Your task to perform on an android device: Go to settings Image 0: 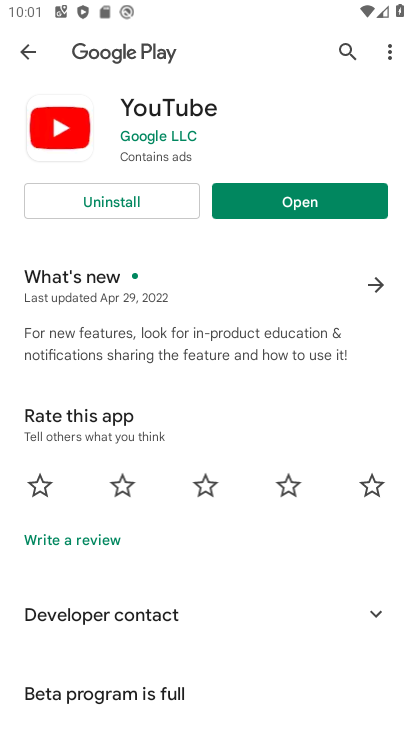
Step 0: press home button
Your task to perform on an android device: Go to settings Image 1: 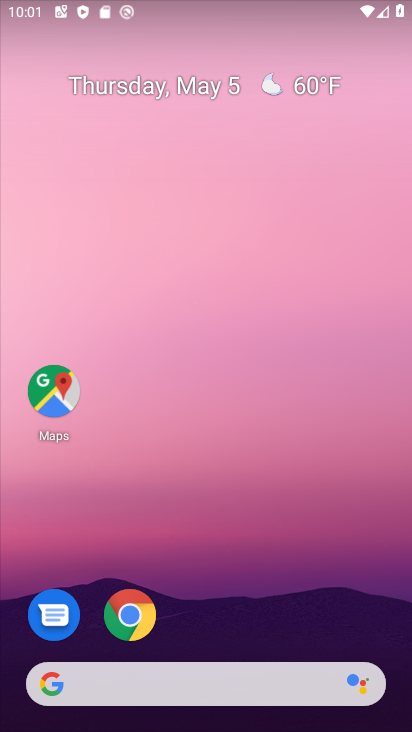
Step 1: drag from (225, 607) to (297, 107)
Your task to perform on an android device: Go to settings Image 2: 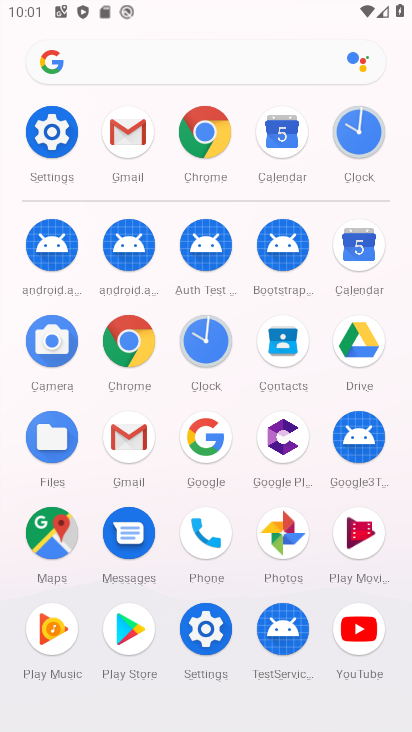
Step 2: click (54, 133)
Your task to perform on an android device: Go to settings Image 3: 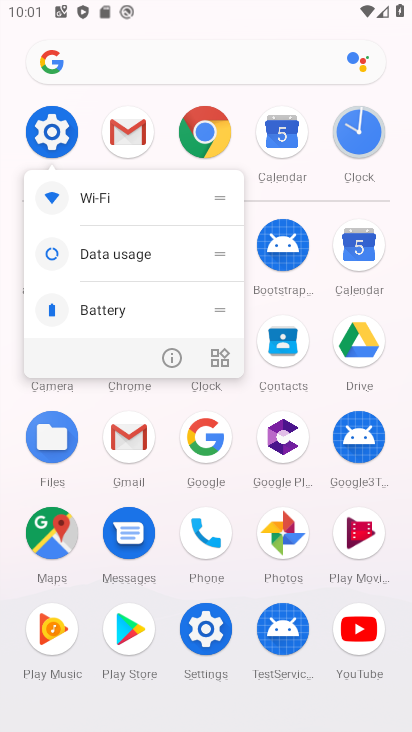
Step 3: click (54, 133)
Your task to perform on an android device: Go to settings Image 4: 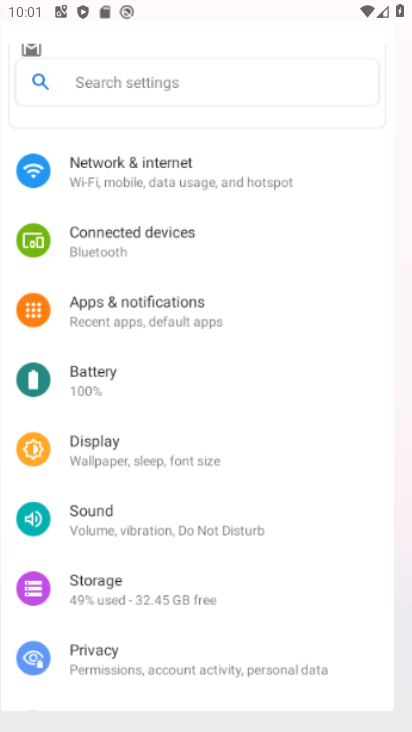
Step 4: click (54, 133)
Your task to perform on an android device: Go to settings Image 5: 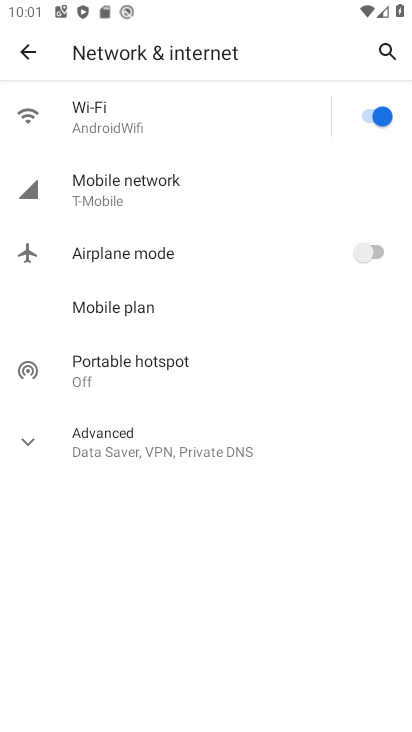
Step 5: task complete